Your task to perform on an android device: Set the phone to "Do not disturb". Image 0: 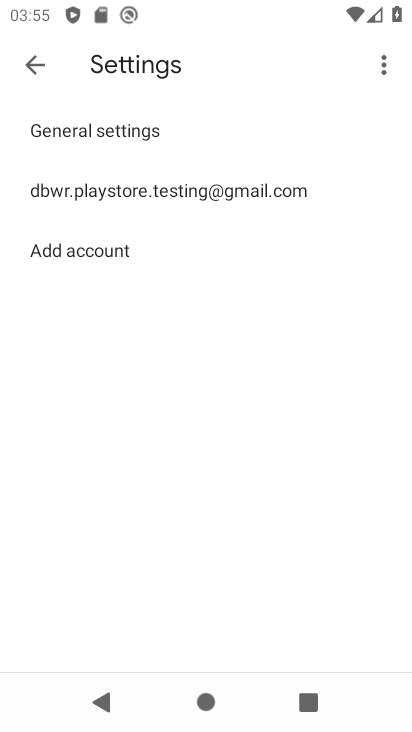
Step 0: press home button
Your task to perform on an android device: Set the phone to "Do not disturb". Image 1: 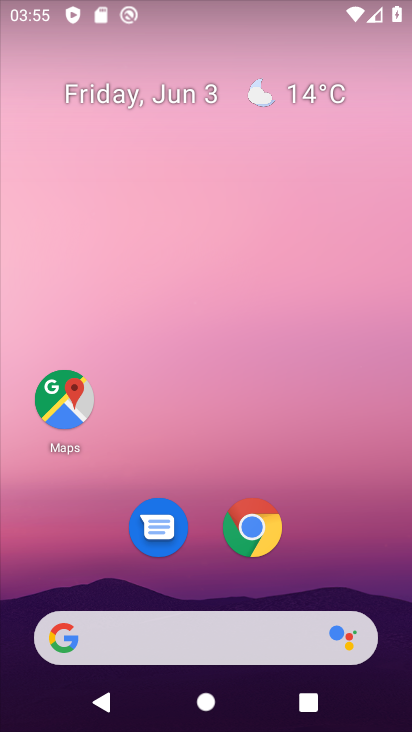
Step 1: drag from (336, 553) to (269, 72)
Your task to perform on an android device: Set the phone to "Do not disturb". Image 2: 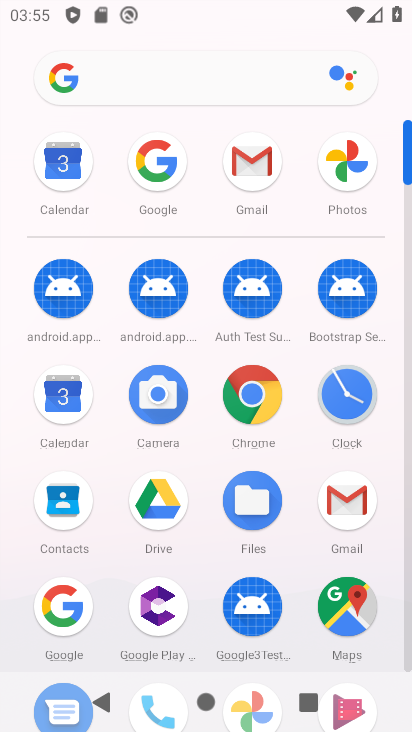
Step 2: drag from (116, 471) to (94, 124)
Your task to perform on an android device: Set the phone to "Do not disturb". Image 3: 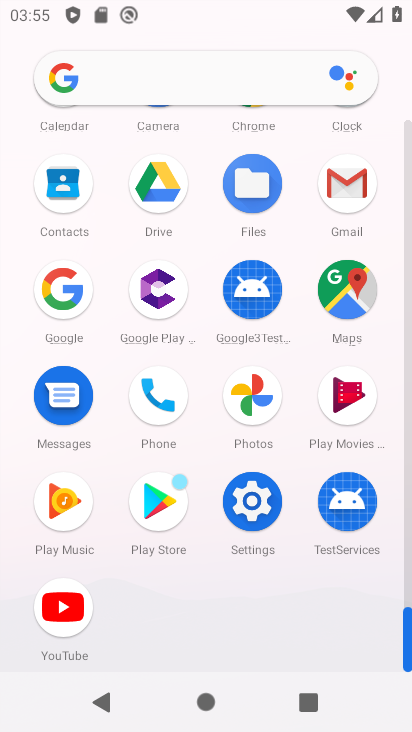
Step 3: click (252, 501)
Your task to perform on an android device: Set the phone to "Do not disturb". Image 4: 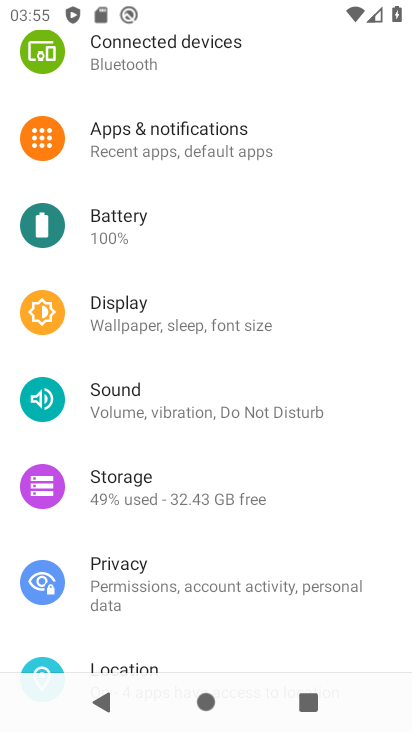
Step 4: click (257, 409)
Your task to perform on an android device: Set the phone to "Do not disturb". Image 5: 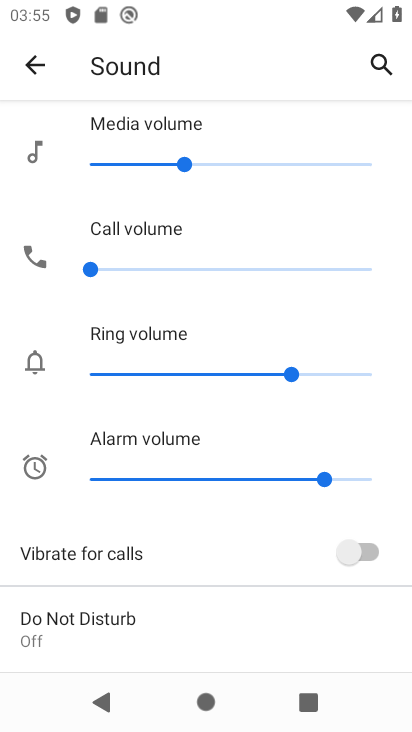
Step 5: click (110, 619)
Your task to perform on an android device: Set the phone to "Do not disturb". Image 6: 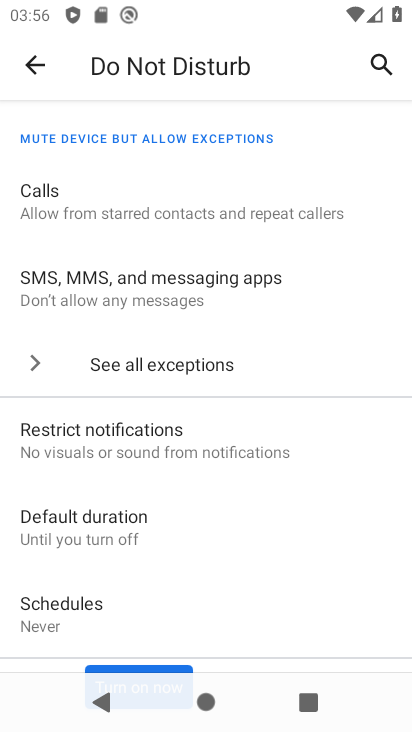
Step 6: drag from (149, 592) to (221, 386)
Your task to perform on an android device: Set the phone to "Do not disturb". Image 7: 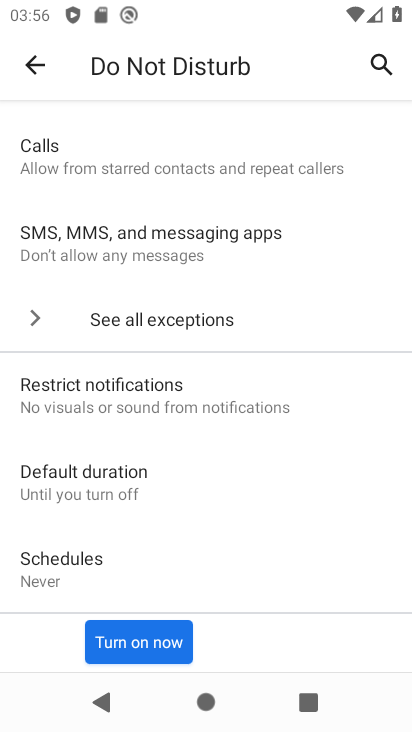
Step 7: click (136, 638)
Your task to perform on an android device: Set the phone to "Do not disturb". Image 8: 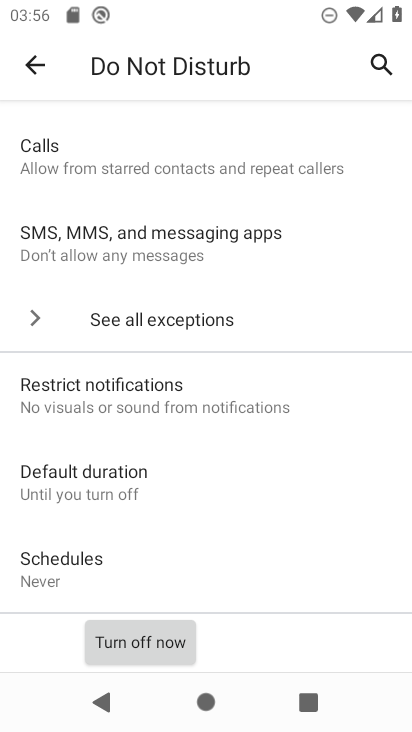
Step 8: task complete